Your task to perform on an android device: Clear the cart on amazon. Search for "razer blackwidow" on amazon, select the first entry, and add it to the cart. Image 0: 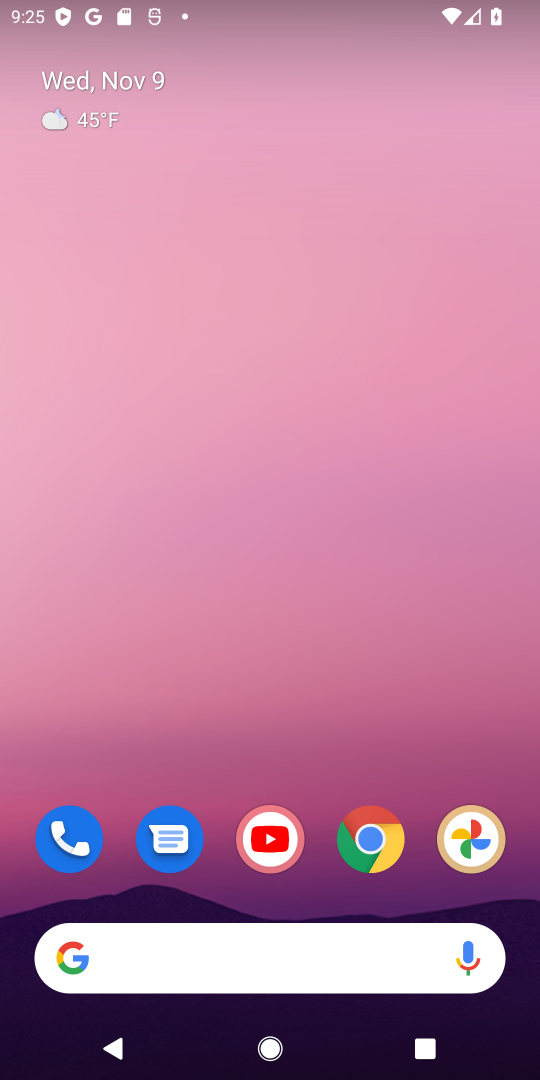
Step 0: drag from (138, 395) to (158, 53)
Your task to perform on an android device: Clear the cart on amazon. Search for "razer blackwidow" on amazon, select the first entry, and add it to the cart. Image 1: 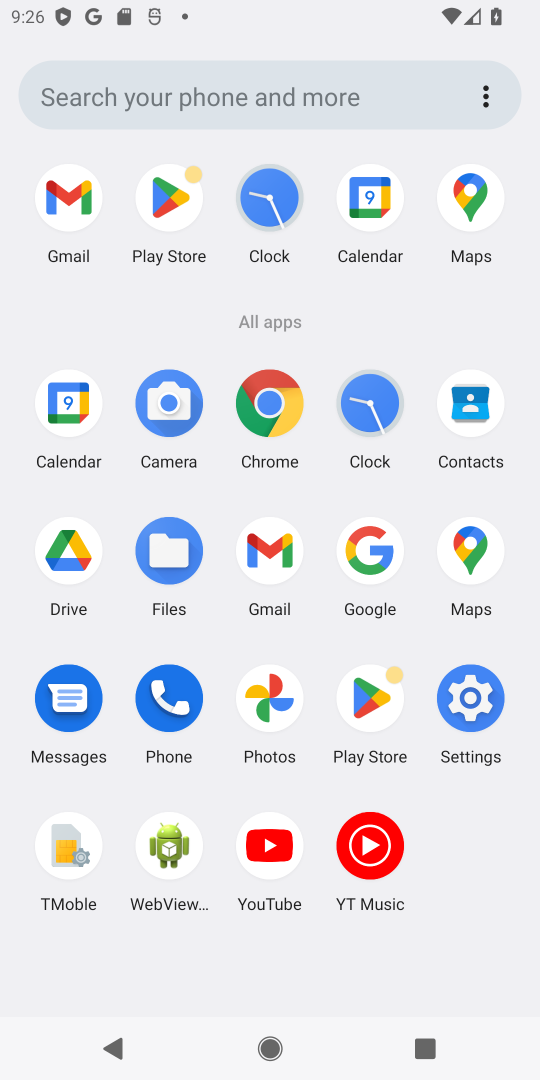
Step 1: click (284, 406)
Your task to perform on an android device: Clear the cart on amazon. Search for "razer blackwidow" on amazon, select the first entry, and add it to the cart. Image 2: 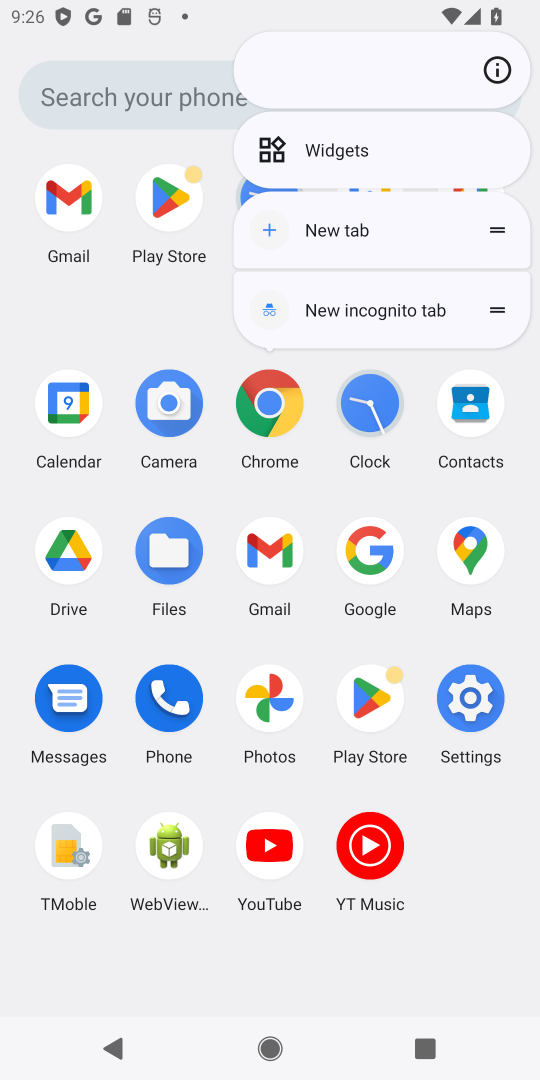
Step 2: click (280, 398)
Your task to perform on an android device: Clear the cart on amazon. Search for "razer blackwidow" on amazon, select the first entry, and add it to the cart. Image 3: 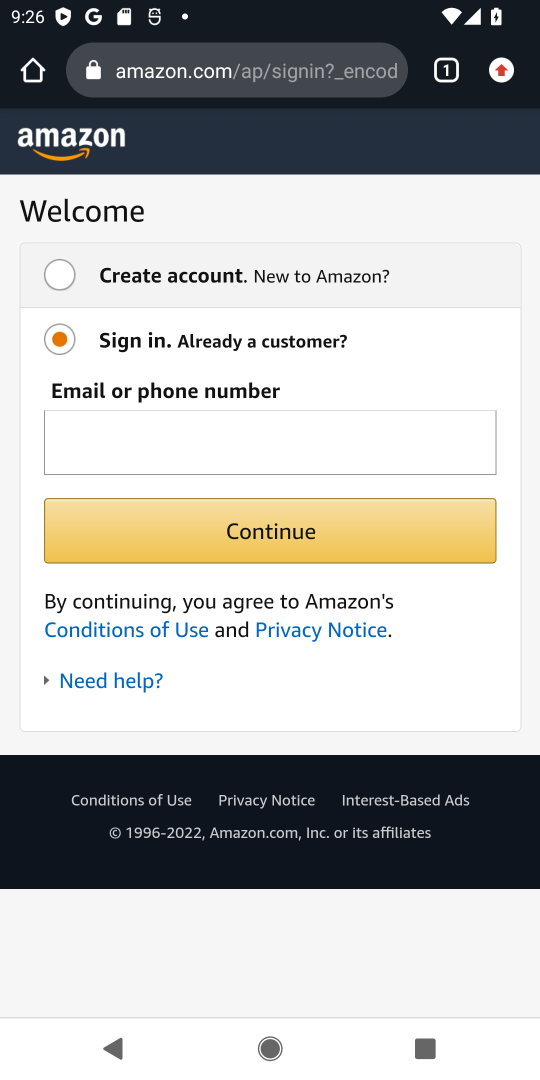
Step 3: press back button
Your task to perform on an android device: Clear the cart on amazon. Search for "razer blackwidow" on amazon, select the first entry, and add it to the cart. Image 4: 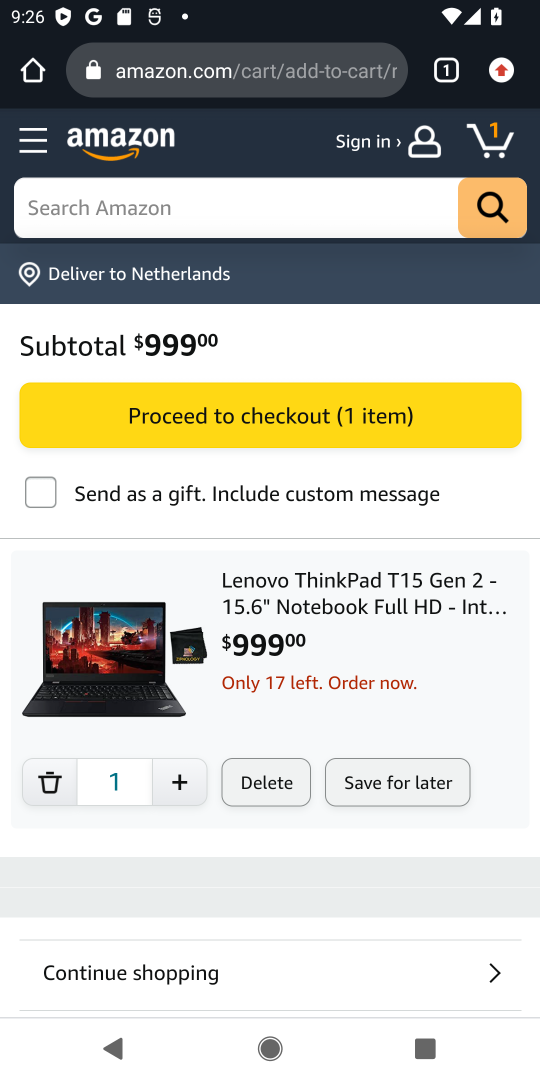
Step 4: click (219, 194)
Your task to perform on an android device: Clear the cart on amazon. Search for "razer blackwidow" on amazon, select the first entry, and add it to the cart. Image 5: 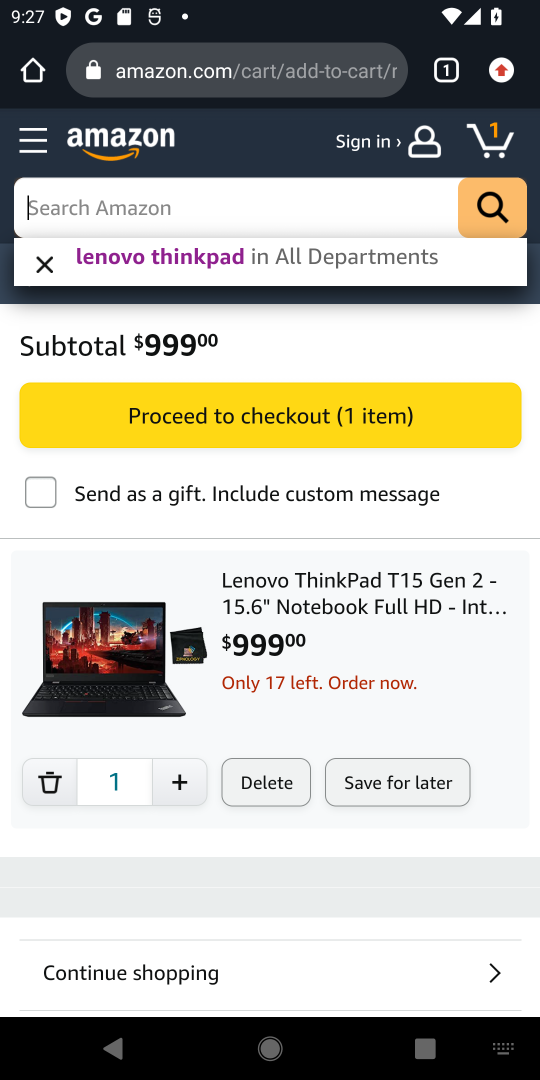
Step 5: type "razer blackwidow"
Your task to perform on an android device: Clear the cart on amazon. Search for "razer blackwidow" on amazon, select the first entry, and add it to the cart. Image 6: 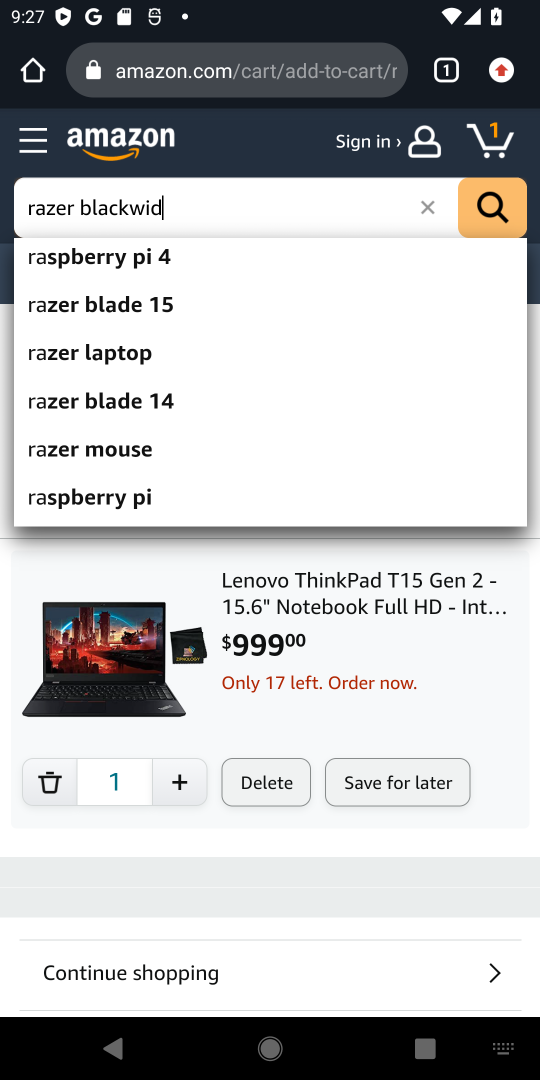
Step 6: press enter
Your task to perform on an android device: Clear the cart on amazon. Search for "razer blackwidow" on amazon, select the first entry, and add it to the cart. Image 7: 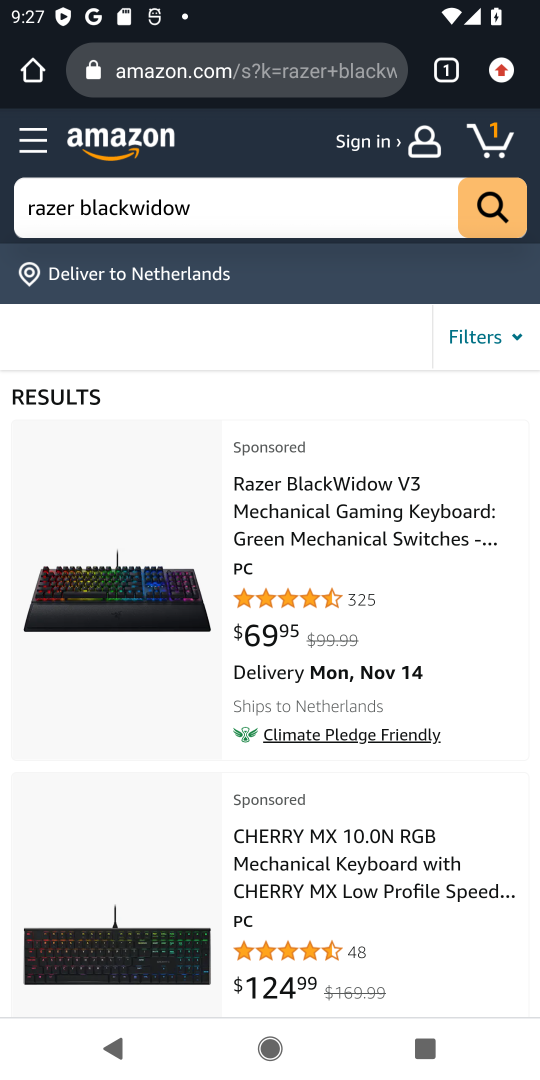
Step 7: click (338, 491)
Your task to perform on an android device: Clear the cart on amazon. Search for "razer blackwidow" on amazon, select the first entry, and add it to the cart. Image 8: 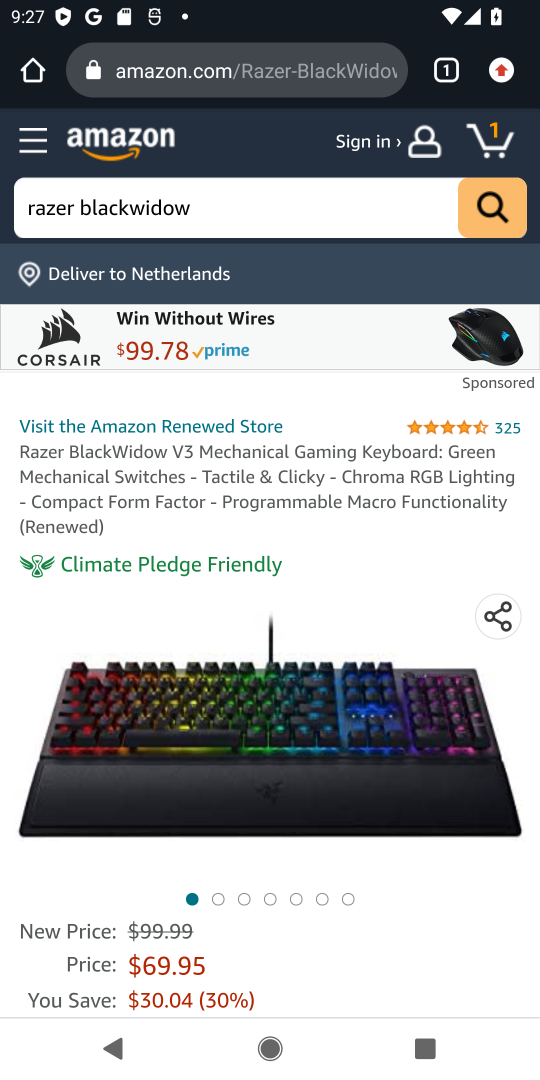
Step 8: drag from (381, 750) to (444, 422)
Your task to perform on an android device: Clear the cart on amazon. Search for "razer blackwidow" on amazon, select the first entry, and add it to the cart. Image 9: 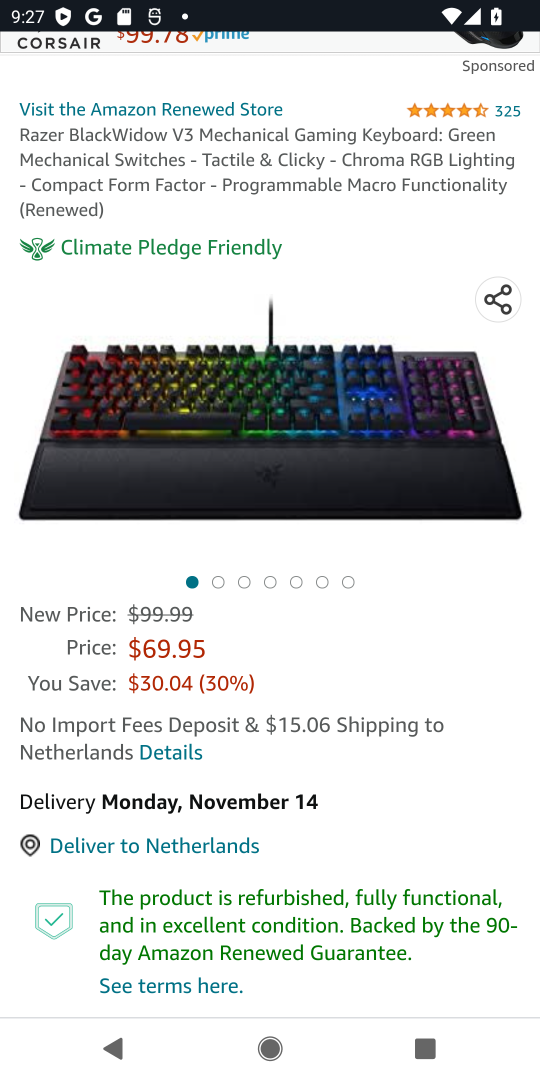
Step 9: drag from (452, 587) to (493, 389)
Your task to perform on an android device: Clear the cart on amazon. Search for "razer blackwidow" on amazon, select the first entry, and add it to the cart. Image 10: 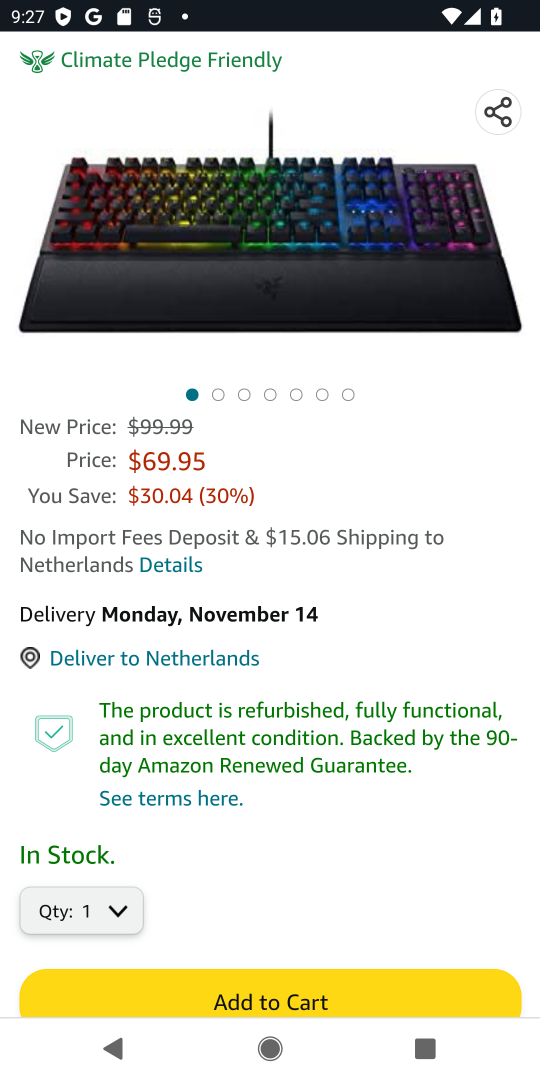
Step 10: drag from (390, 786) to (389, 463)
Your task to perform on an android device: Clear the cart on amazon. Search for "razer blackwidow" on amazon, select the first entry, and add it to the cart. Image 11: 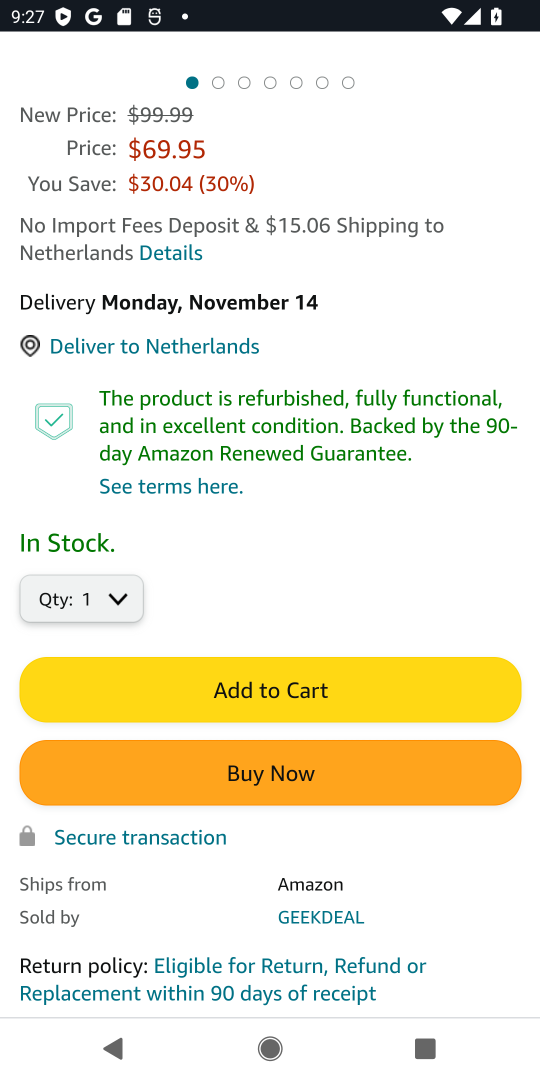
Step 11: click (325, 690)
Your task to perform on an android device: Clear the cart on amazon. Search for "razer blackwidow" on amazon, select the first entry, and add it to the cart. Image 12: 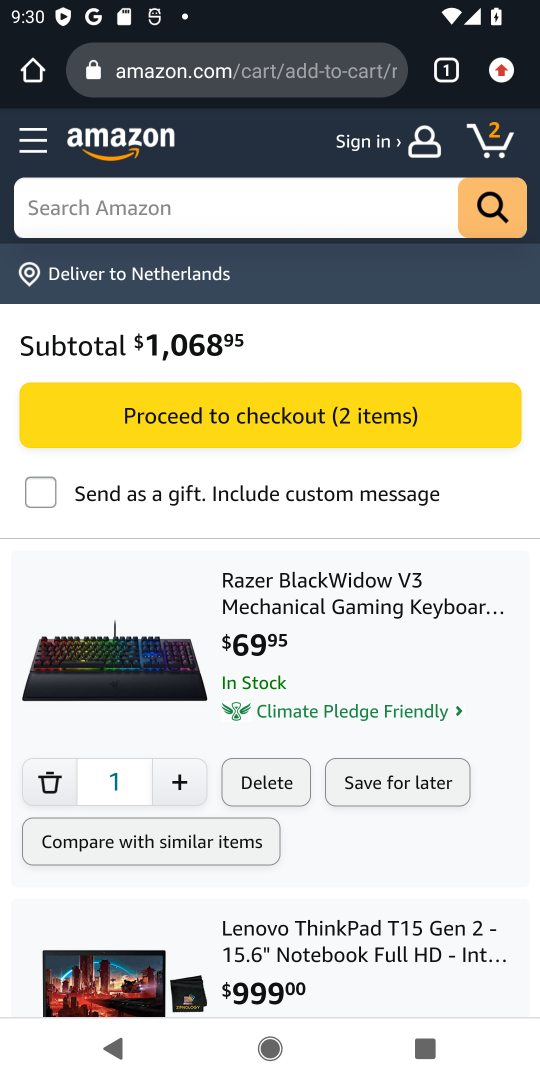
Step 12: click (295, 596)
Your task to perform on an android device: Clear the cart on amazon. Search for "razer blackwidow" on amazon, select the first entry, and add it to the cart. Image 13: 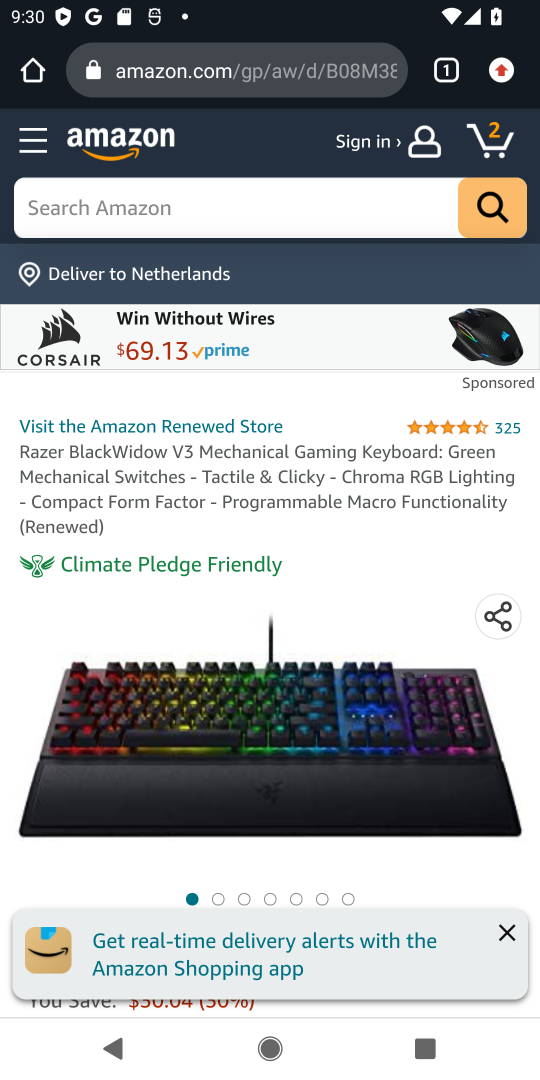
Step 13: drag from (318, 697) to (329, 404)
Your task to perform on an android device: Clear the cart on amazon. Search for "razer blackwidow" on amazon, select the first entry, and add it to the cart. Image 14: 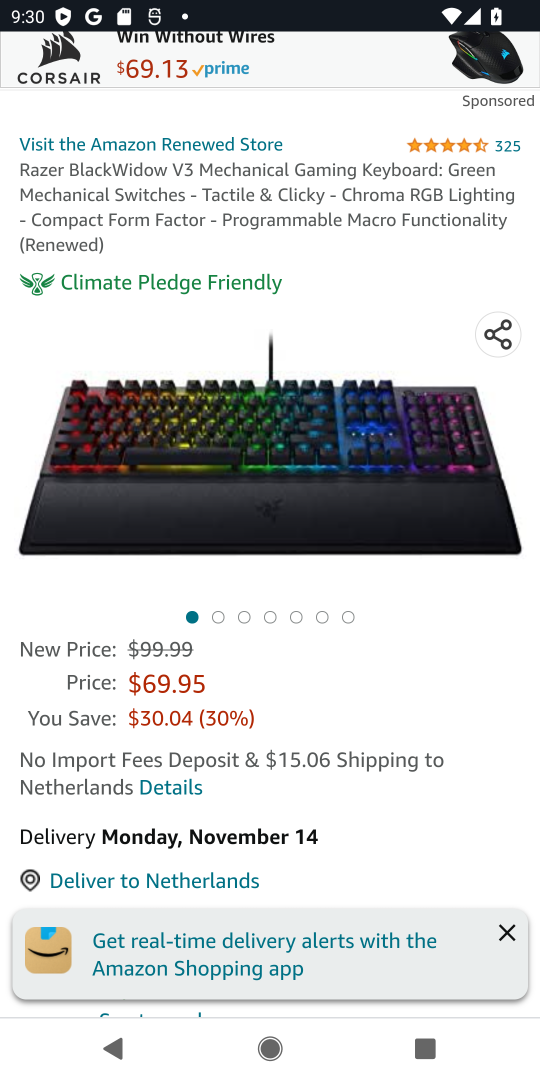
Step 14: drag from (275, 677) to (285, 409)
Your task to perform on an android device: Clear the cart on amazon. Search for "razer blackwidow" on amazon, select the first entry, and add it to the cart. Image 15: 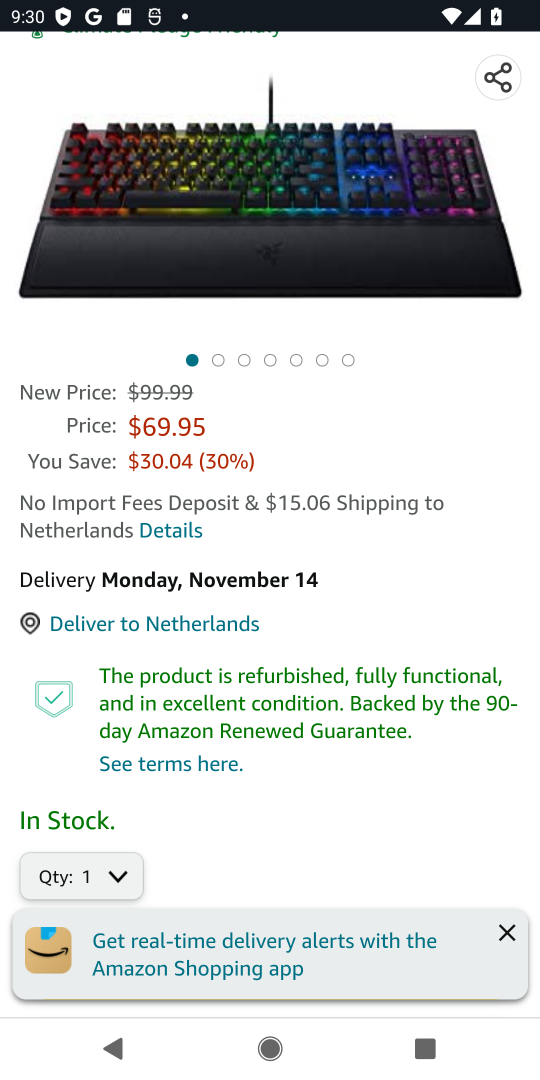
Step 15: drag from (261, 678) to (249, 323)
Your task to perform on an android device: Clear the cart on amazon. Search for "razer blackwidow" on amazon, select the first entry, and add it to the cart. Image 16: 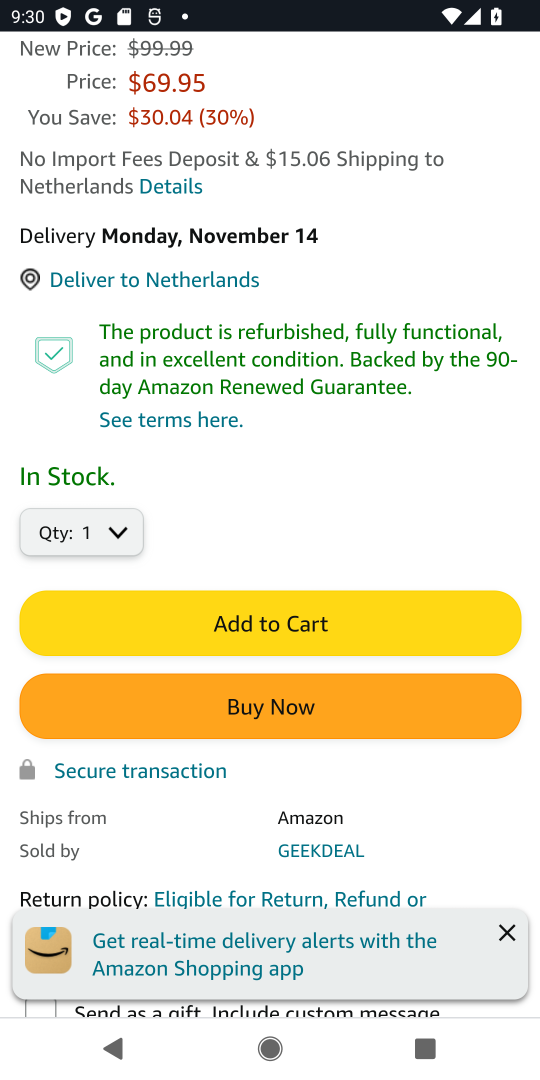
Step 16: drag from (234, 320) to (340, 770)
Your task to perform on an android device: Clear the cart on amazon. Search for "razer blackwidow" on amazon, select the first entry, and add it to the cart. Image 17: 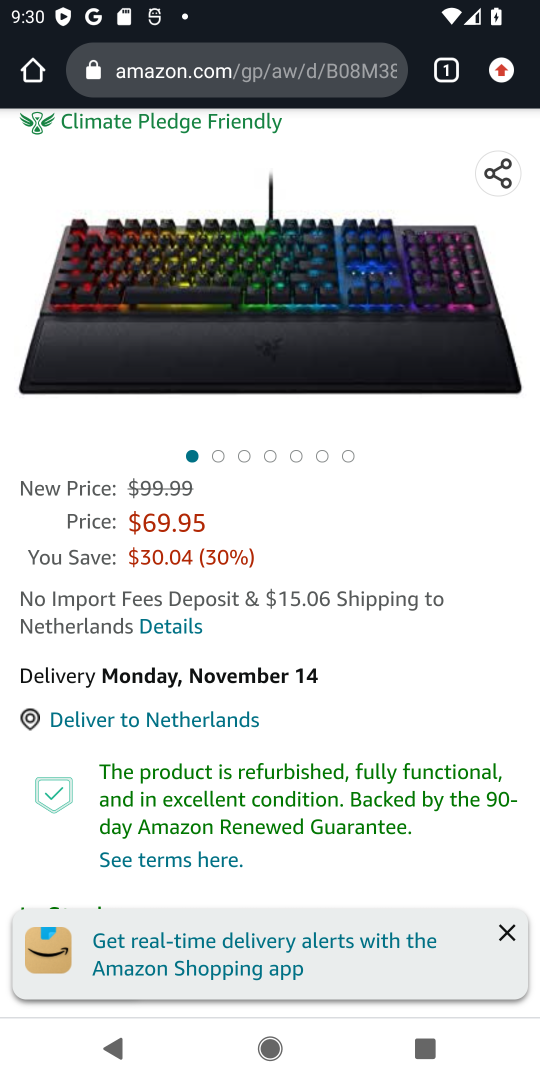
Step 17: drag from (302, 473) to (389, 775)
Your task to perform on an android device: Clear the cart on amazon. Search for "razer blackwidow" on amazon, select the first entry, and add it to the cart. Image 18: 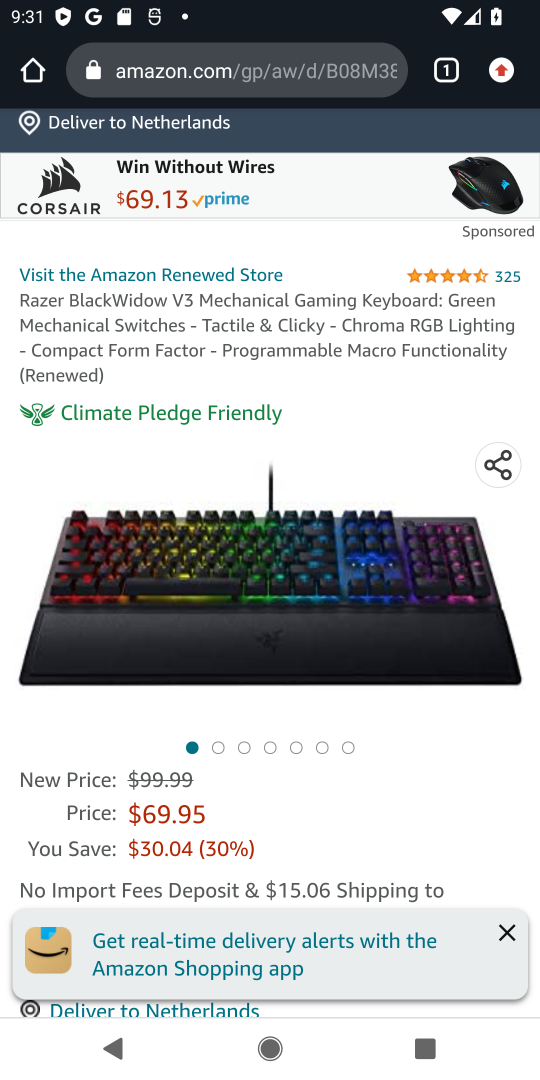
Step 18: drag from (412, 158) to (488, 425)
Your task to perform on an android device: Clear the cart on amazon. Search for "razer blackwidow" on amazon, select the first entry, and add it to the cart. Image 19: 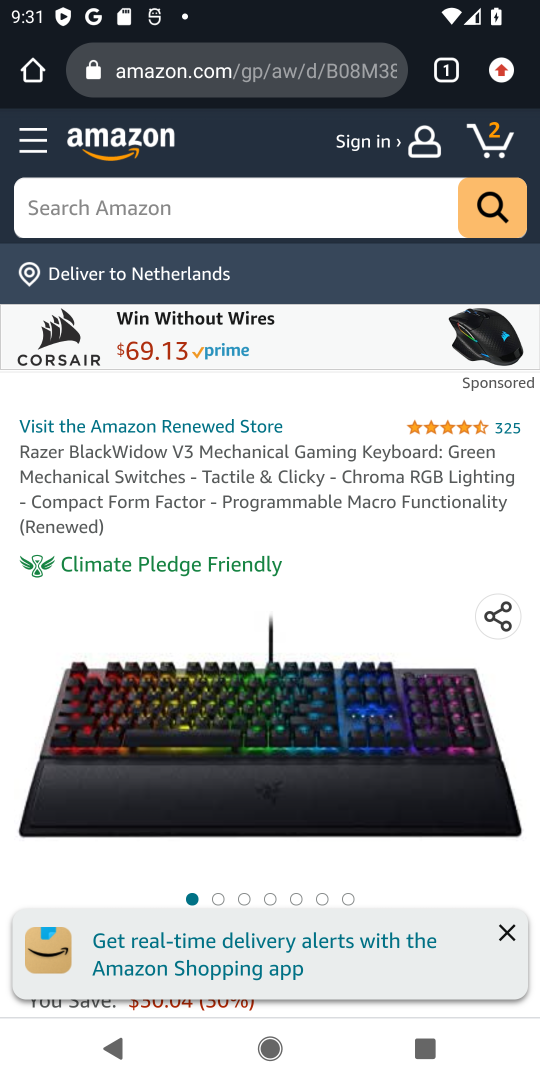
Step 19: click (506, 140)
Your task to perform on an android device: Clear the cart on amazon. Search for "razer blackwidow" on amazon, select the first entry, and add it to the cart. Image 20: 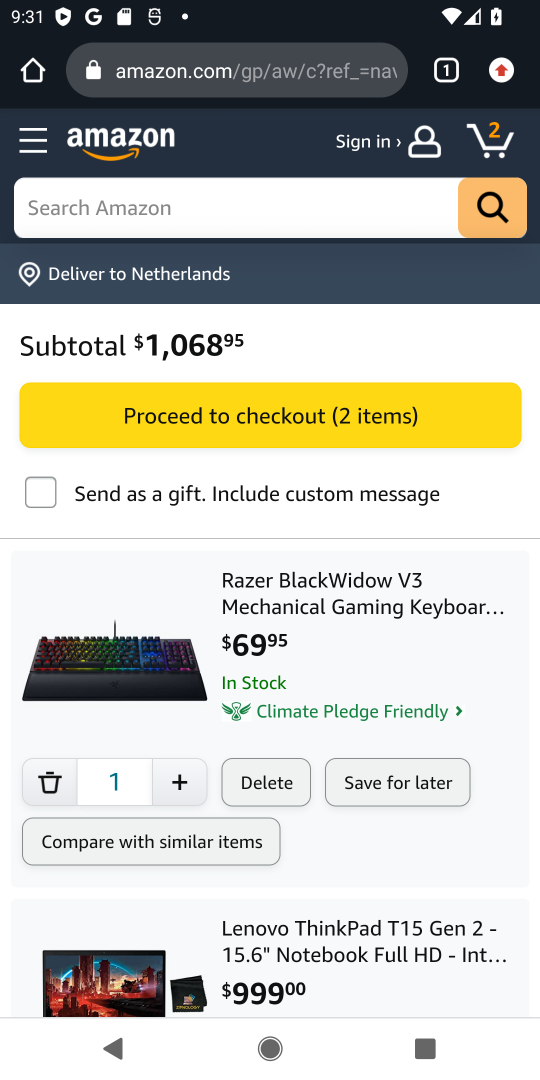
Step 20: drag from (287, 662) to (333, 493)
Your task to perform on an android device: Clear the cart on amazon. Search for "razer blackwidow" on amazon, select the first entry, and add it to the cart. Image 21: 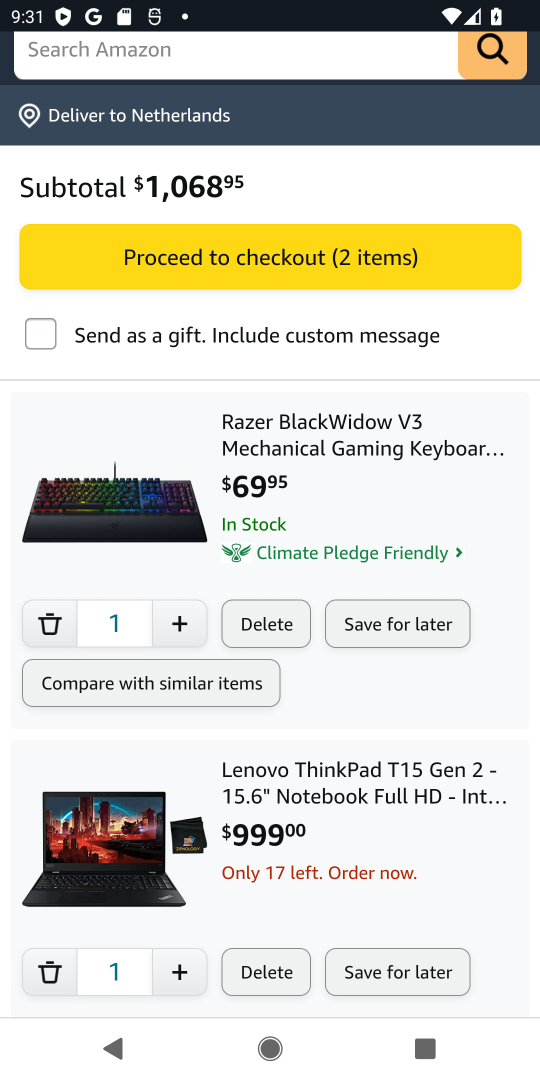
Step 21: click (55, 612)
Your task to perform on an android device: Clear the cart on amazon. Search for "razer blackwidow" on amazon, select the first entry, and add it to the cart. Image 22: 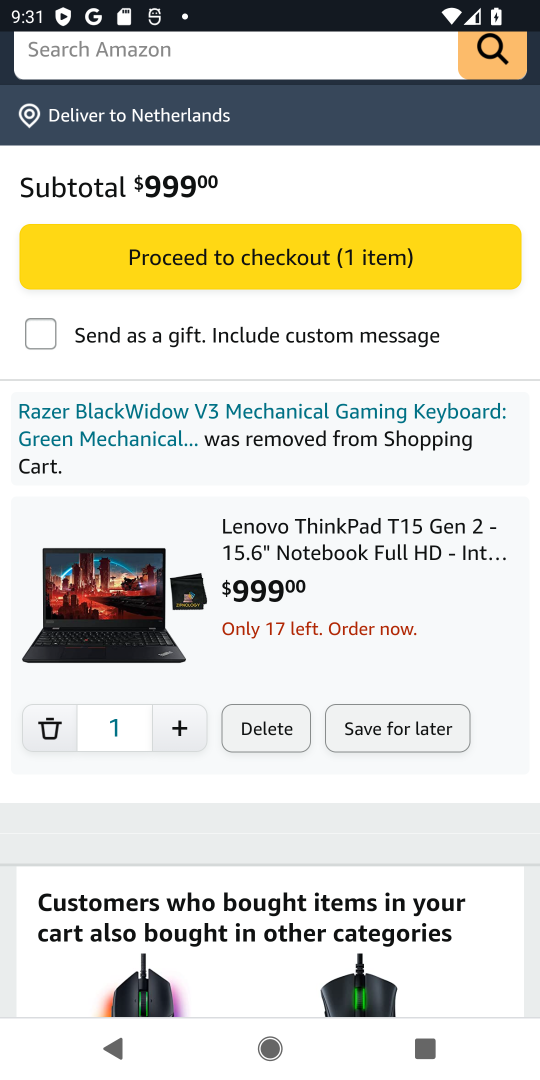
Step 22: click (55, 746)
Your task to perform on an android device: Clear the cart on amazon. Search for "razer blackwidow" on amazon, select the first entry, and add it to the cart. Image 23: 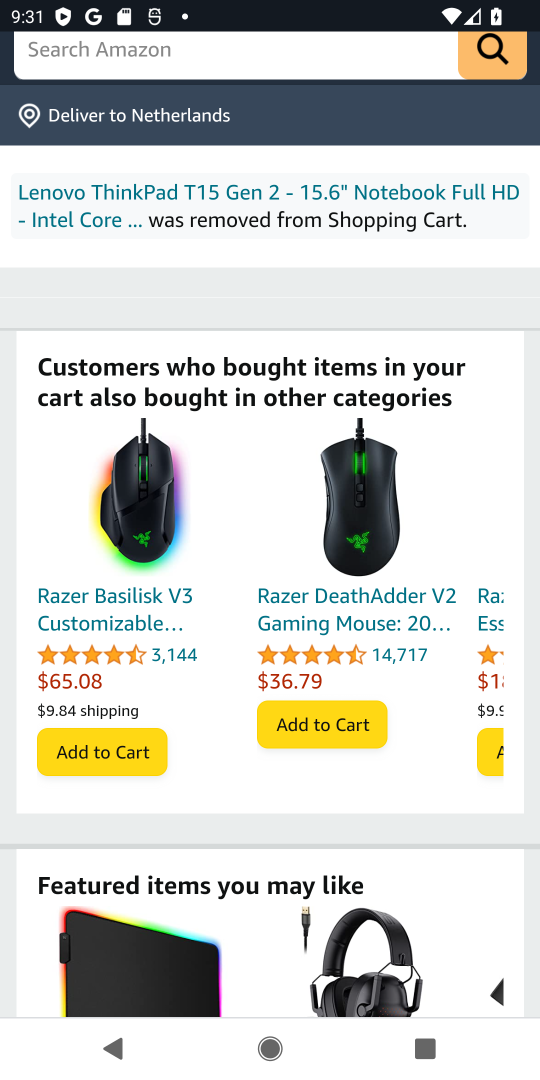
Step 23: drag from (113, 570) to (159, 750)
Your task to perform on an android device: Clear the cart on amazon. Search for "razer blackwidow" on amazon, select the first entry, and add it to the cart. Image 24: 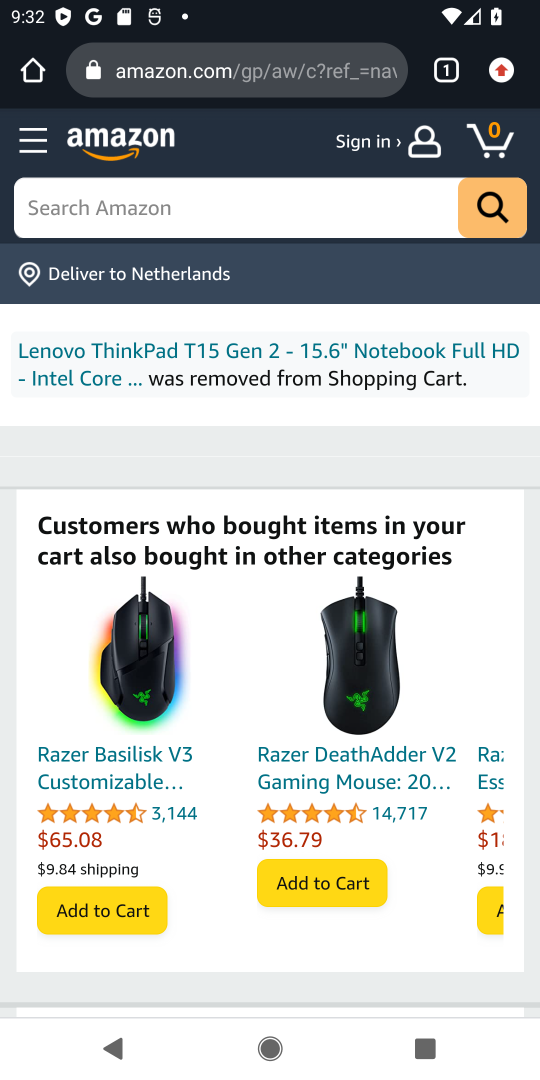
Step 24: click (271, 201)
Your task to perform on an android device: Clear the cart on amazon. Search for "razer blackwidow" on amazon, select the first entry, and add it to the cart. Image 25: 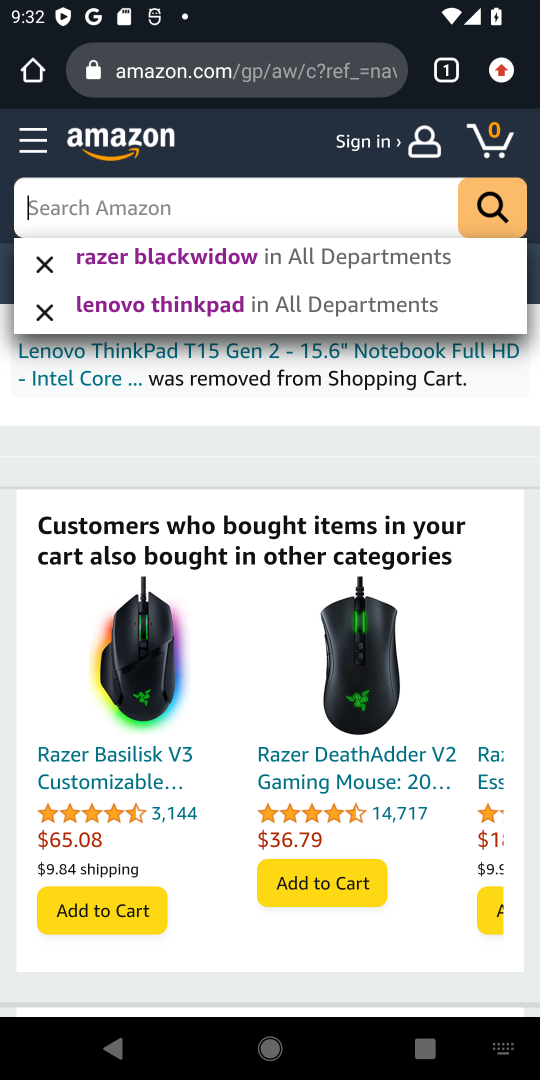
Step 25: type "razer blackwidow"
Your task to perform on an android device: Clear the cart on amazon. Search for "razer blackwidow" on amazon, select the first entry, and add it to the cart. Image 26: 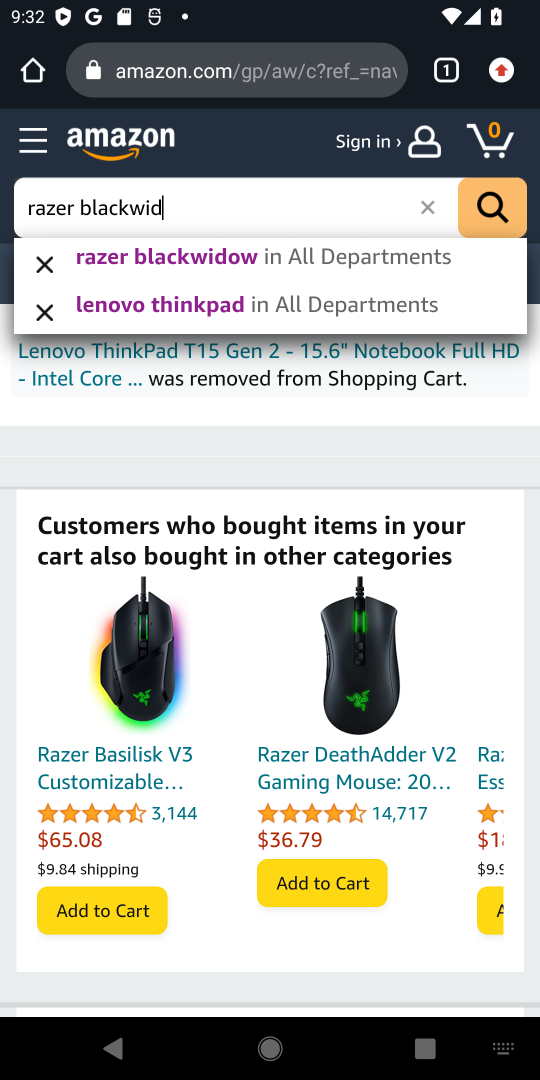
Step 26: press enter
Your task to perform on an android device: Clear the cart on amazon. Search for "razer blackwidow" on amazon, select the first entry, and add it to the cart. Image 27: 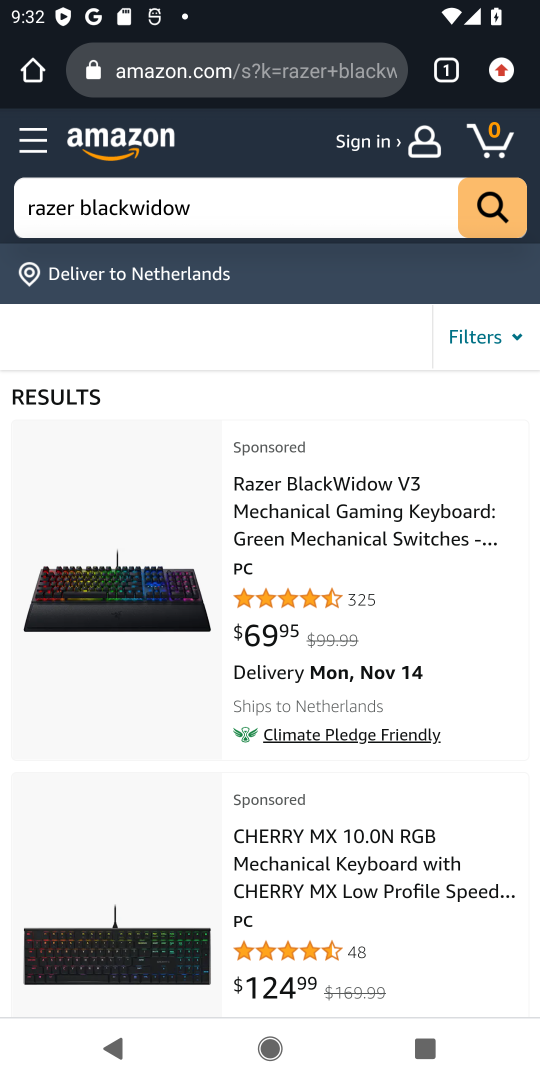
Step 27: click (337, 509)
Your task to perform on an android device: Clear the cart on amazon. Search for "razer blackwidow" on amazon, select the first entry, and add it to the cart. Image 28: 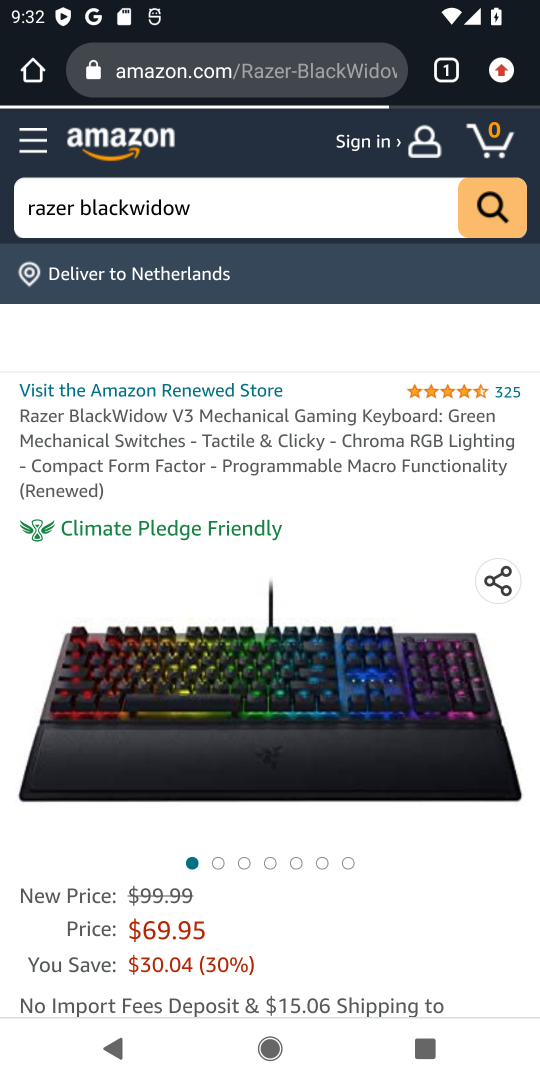
Step 28: drag from (301, 776) to (288, 464)
Your task to perform on an android device: Clear the cart on amazon. Search for "razer blackwidow" on amazon, select the first entry, and add it to the cart. Image 29: 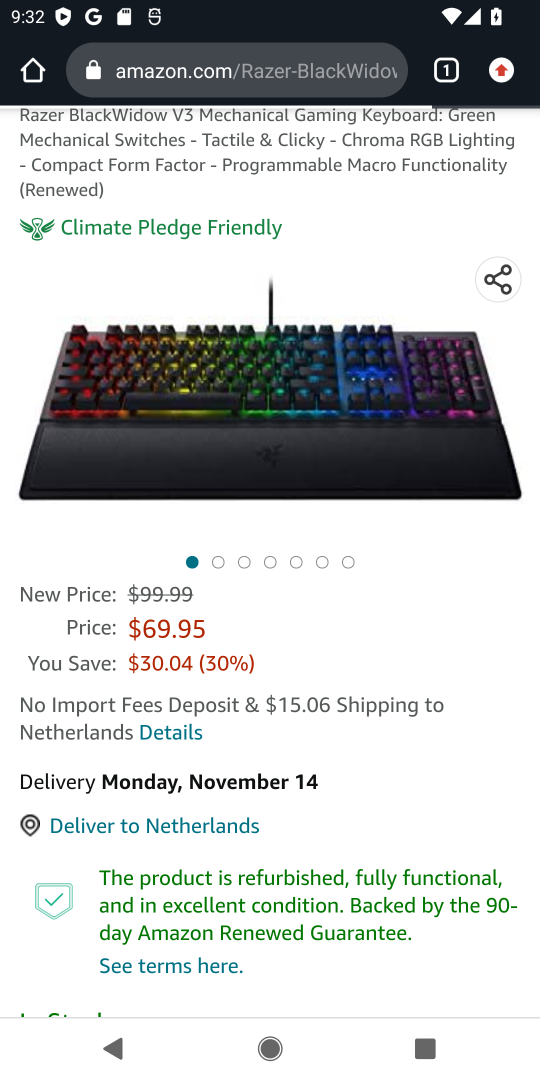
Step 29: drag from (299, 733) to (274, 378)
Your task to perform on an android device: Clear the cart on amazon. Search for "razer blackwidow" on amazon, select the first entry, and add it to the cart. Image 30: 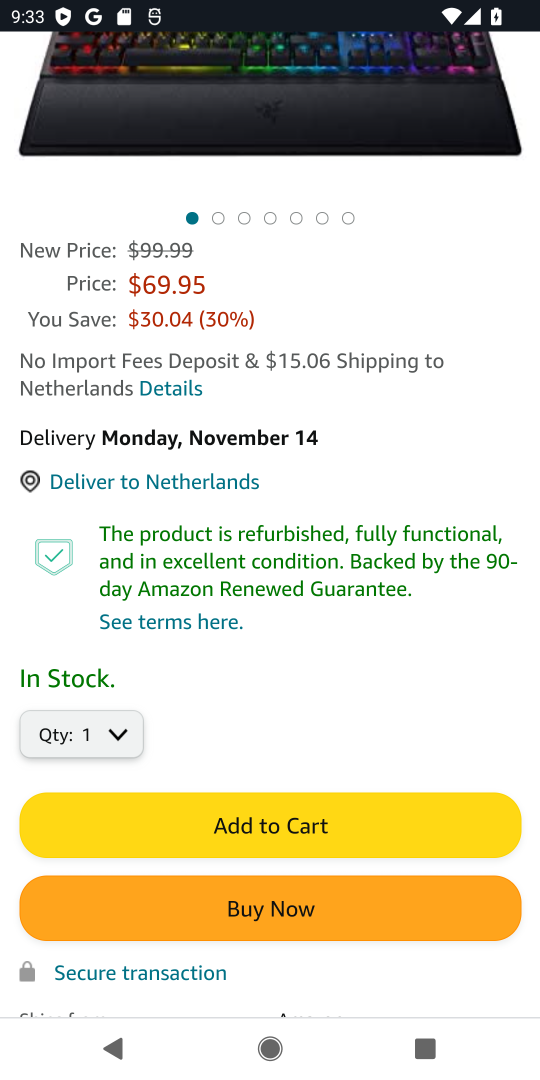
Step 30: click (302, 813)
Your task to perform on an android device: Clear the cart on amazon. Search for "razer blackwidow" on amazon, select the first entry, and add it to the cart. Image 31: 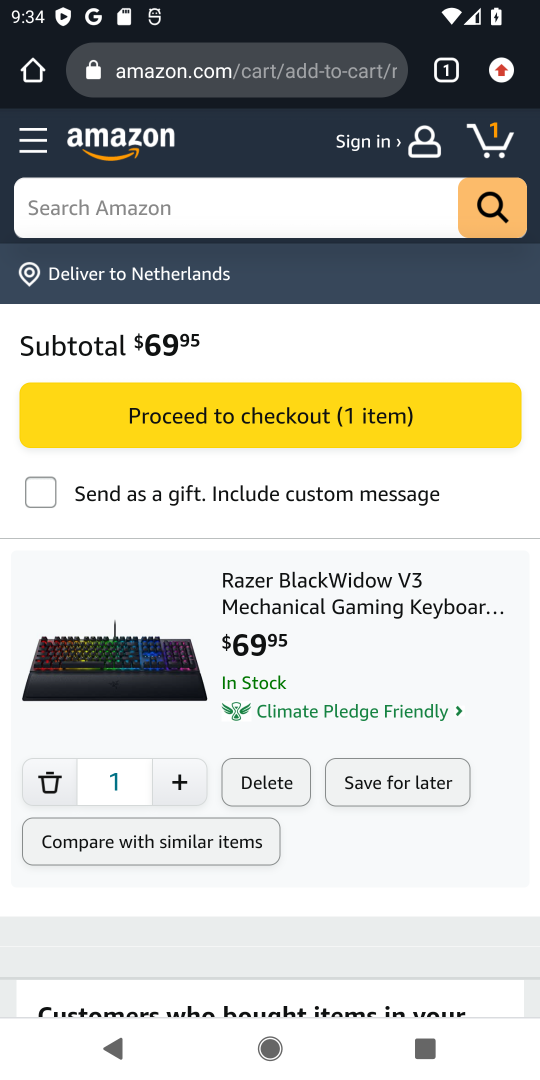
Step 31: task complete